Your task to perform on an android device: allow cookies in the chrome app Image 0: 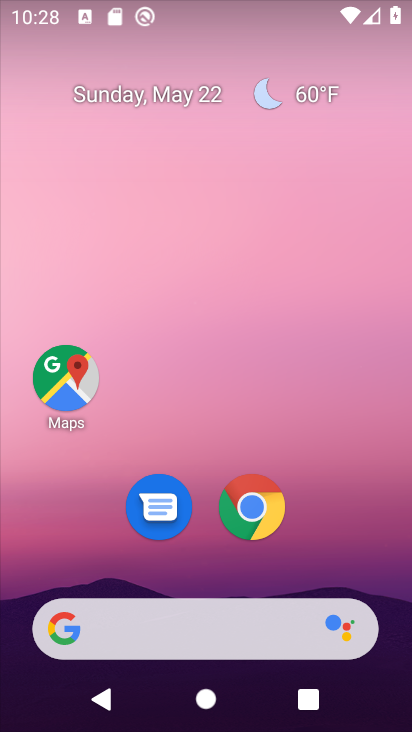
Step 0: click (225, 501)
Your task to perform on an android device: allow cookies in the chrome app Image 1: 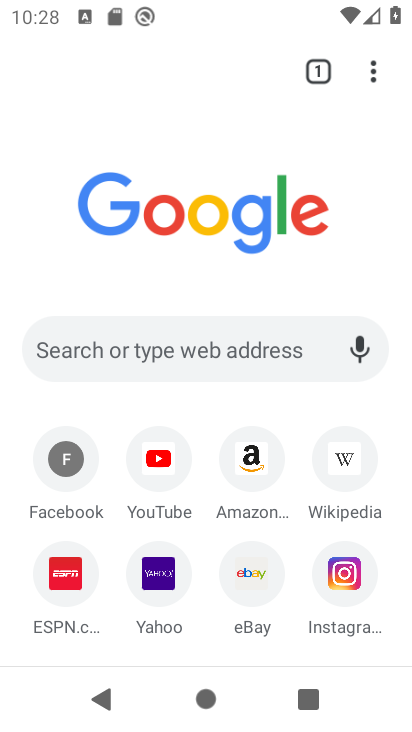
Step 1: click (384, 64)
Your task to perform on an android device: allow cookies in the chrome app Image 2: 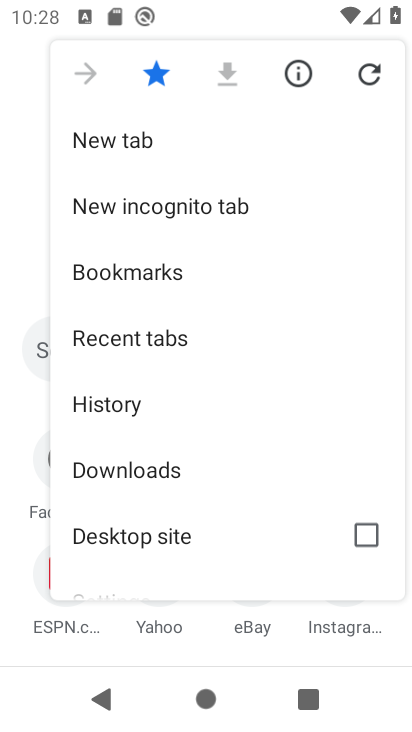
Step 2: drag from (110, 576) to (168, 154)
Your task to perform on an android device: allow cookies in the chrome app Image 3: 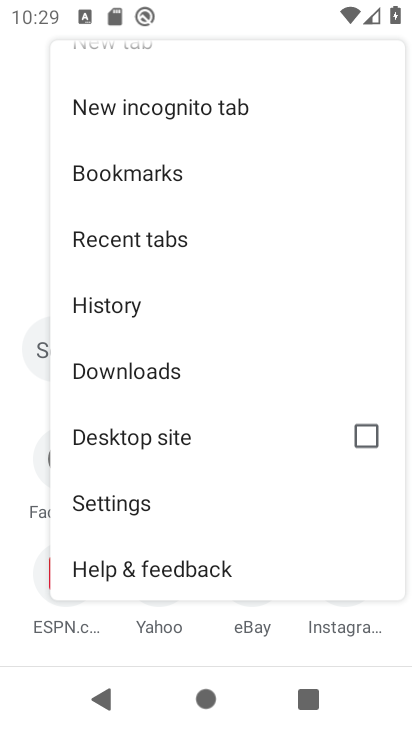
Step 3: click (149, 505)
Your task to perform on an android device: allow cookies in the chrome app Image 4: 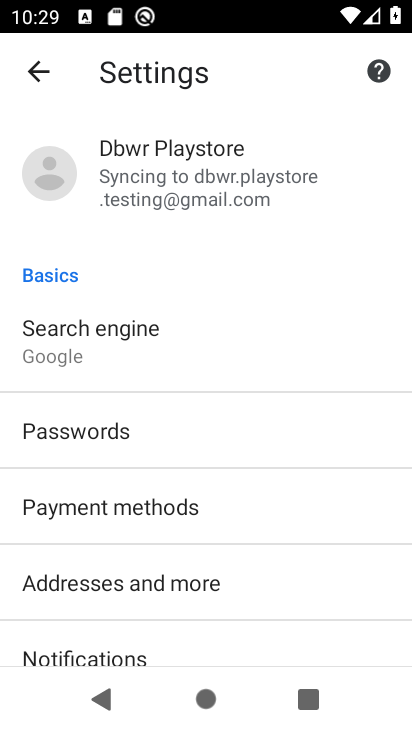
Step 4: drag from (166, 659) to (254, 0)
Your task to perform on an android device: allow cookies in the chrome app Image 5: 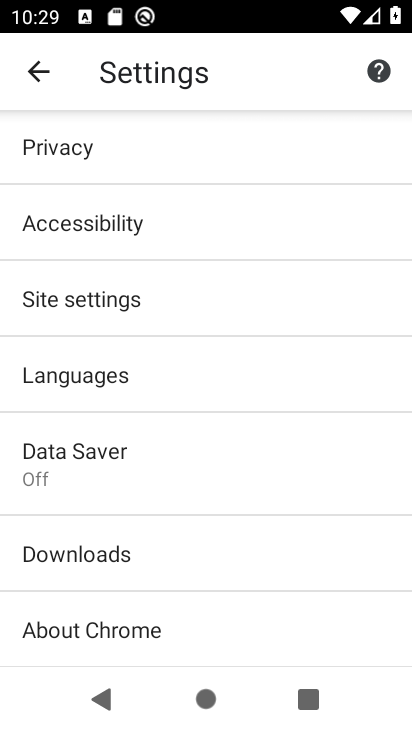
Step 5: click (114, 294)
Your task to perform on an android device: allow cookies in the chrome app Image 6: 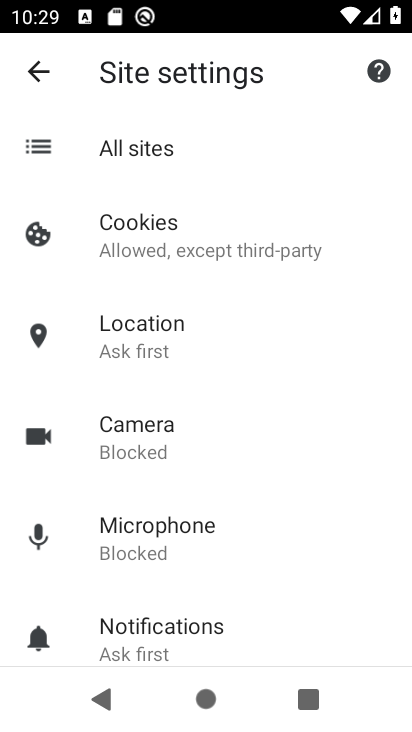
Step 6: click (239, 244)
Your task to perform on an android device: allow cookies in the chrome app Image 7: 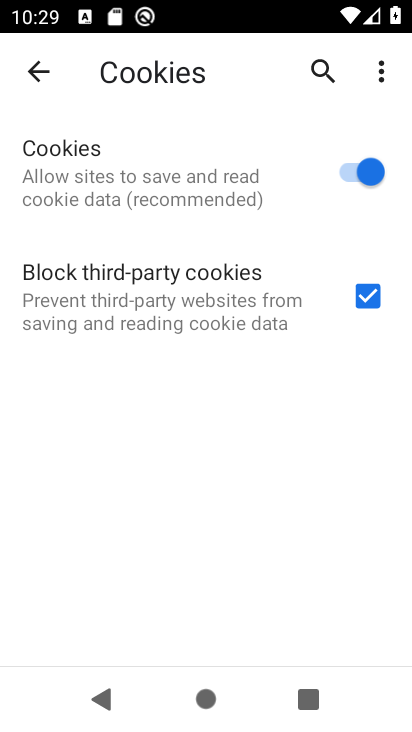
Step 7: task complete